Your task to perform on an android device: Open Chrome and go to settings Image 0: 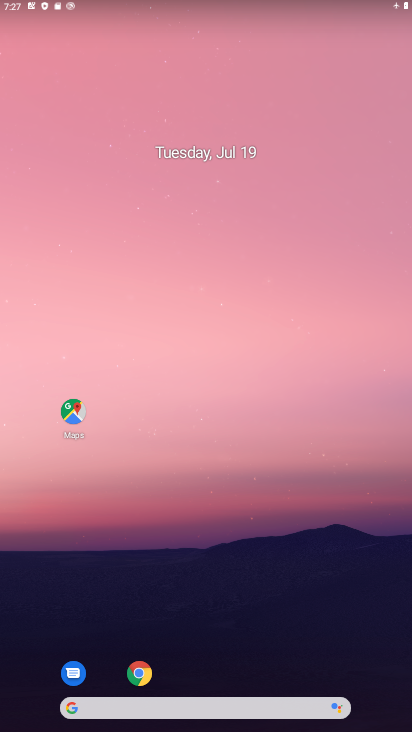
Step 0: drag from (366, 703) to (262, 76)
Your task to perform on an android device: Open Chrome and go to settings Image 1: 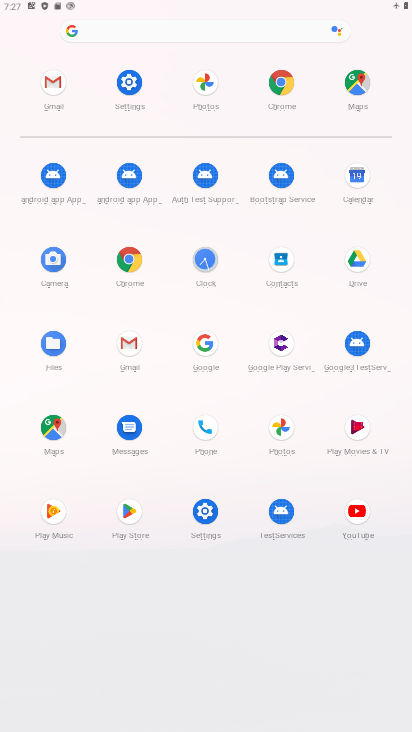
Step 1: click (278, 85)
Your task to perform on an android device: Open Chrome and go to settings Image 2: 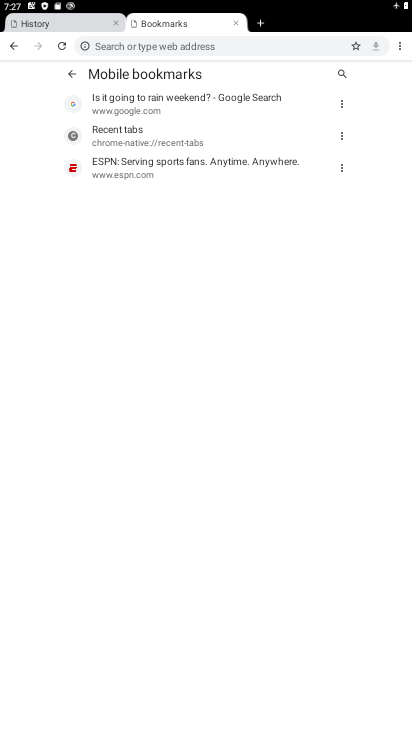
Step 2: click (398, 50)
Your task to perform on an android device: Open Chrome and go to settings Image 3: 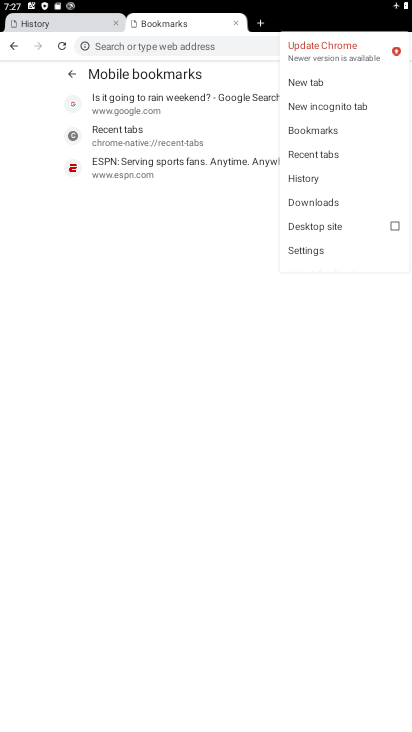
Step 3: click (306, 252)
Your task to perform on an android device: Open Chrome and go to settings Image 4: 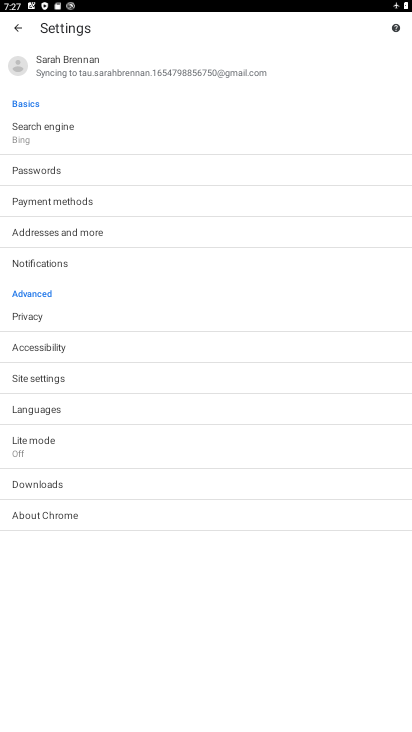
Step 4: task complete